Your task to perform on an android device: add a contact in the contacts app Image 0: 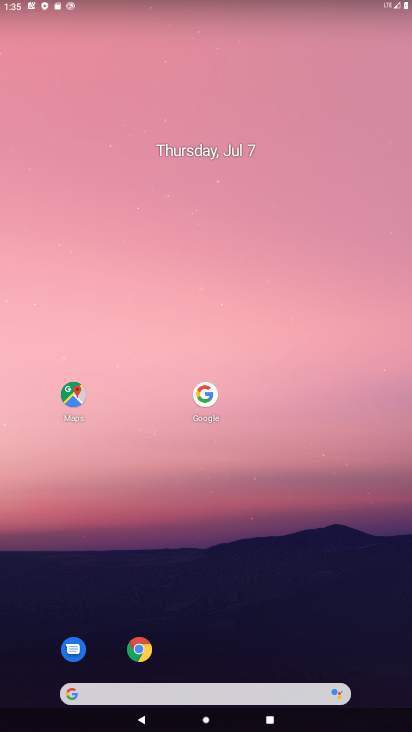
Step 0: press home button
Your task to perform on an android device: add a contact in the contacts app Image 1: 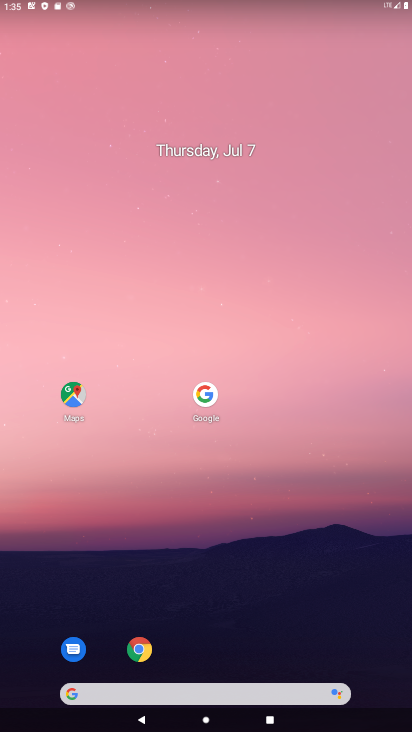
Step 1: press home button
Your task to perform on an android device: add a contact in the contacts app Image 2: 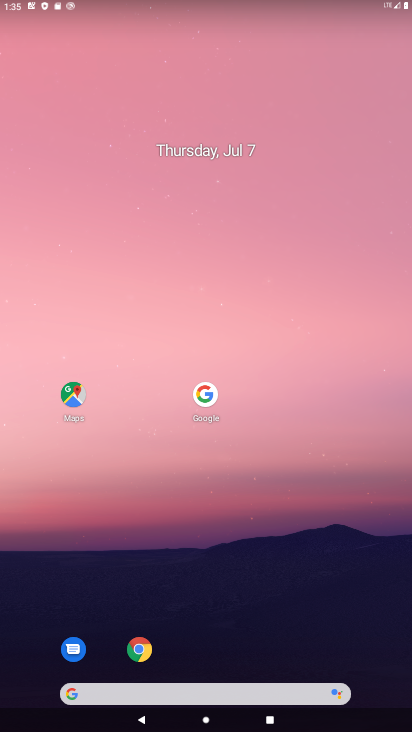
Step 2: drag from (281, 572) to (328, 138)
Your task to perform on an android device: add a contact in the contacts app Image 3: 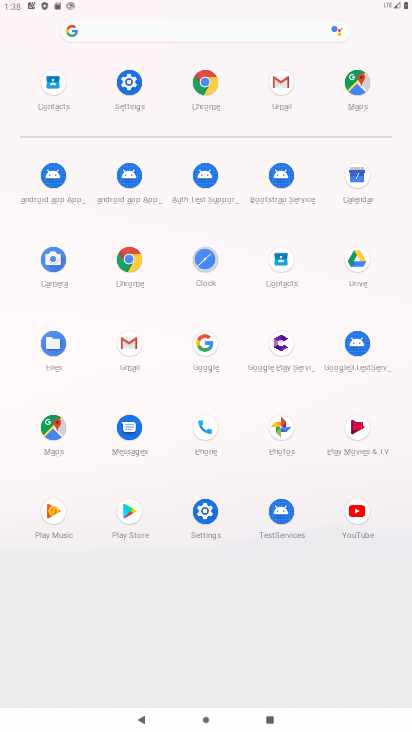
Step 3: click (283, 263)
Your task to perform on an android device: add a contact in the contacts app Image 4: 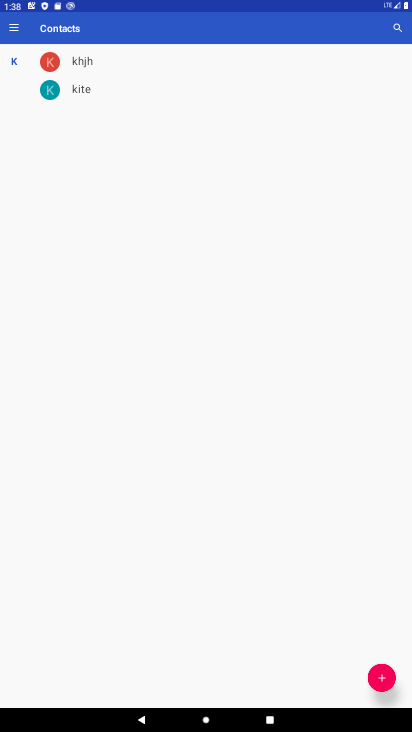
Step 4: click (387, 678)
Your task to perform on an android device: add a contact in the contacts app Image 5: 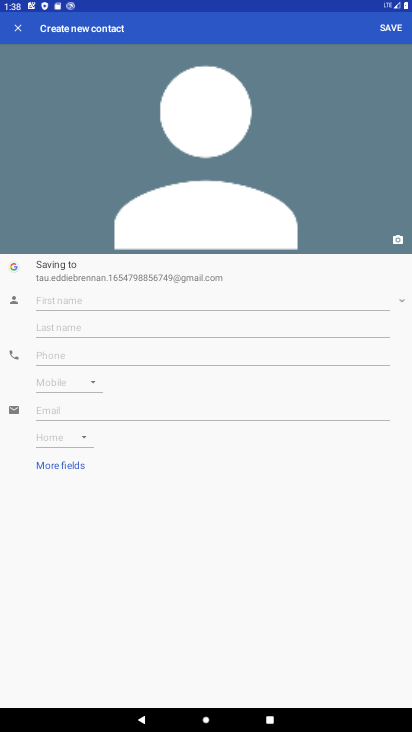
Step 5: click (107, 307)
Your task to perform on an android device: add a contact in the contacts app Image 6: 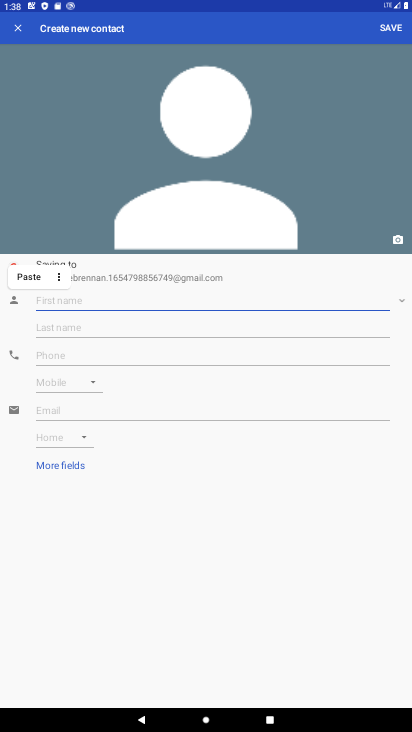
Step 6: type "hgggghhh"
Your task to perform on an android device: add a contact in the contacts app Image 7: 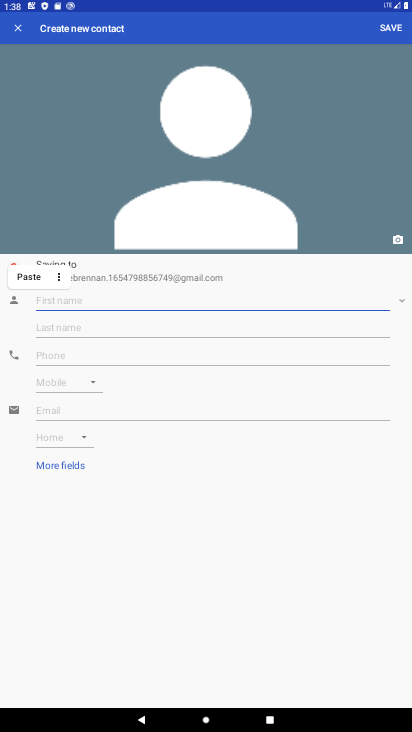
Step 7: click (87, 302)
Your task to perform on an android device: add a contact in the contacts app Image 8: 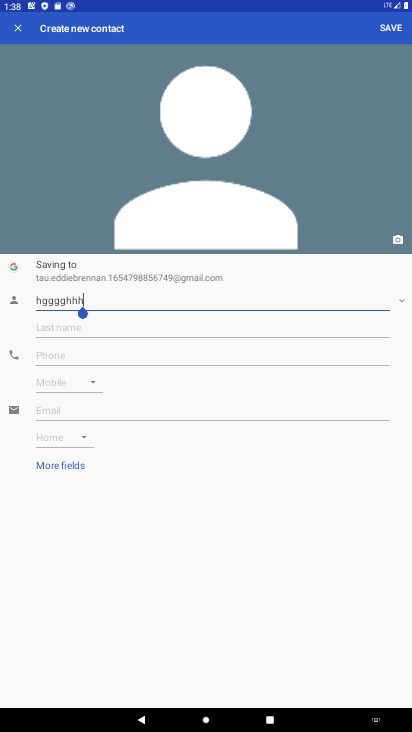
Step 8: click (92, 349)
Your task to perform on an android device: add a contact in the contacts app Image 9: 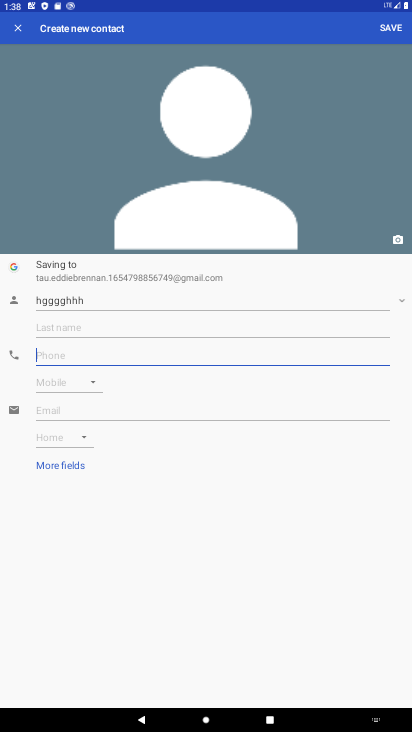
Step 9: click (69, 357)
Your task to perform on an android device: add a contact in the contacts app Image 10: 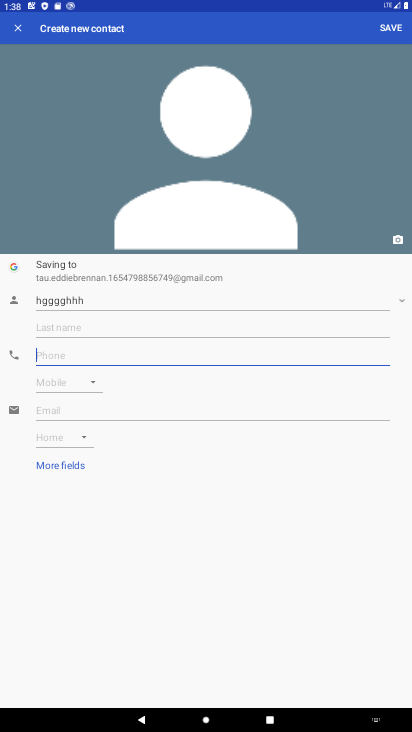
Step 10: type "654665353535536"
Your task to perform on an android device: add a contact in the contacts app Image 11: 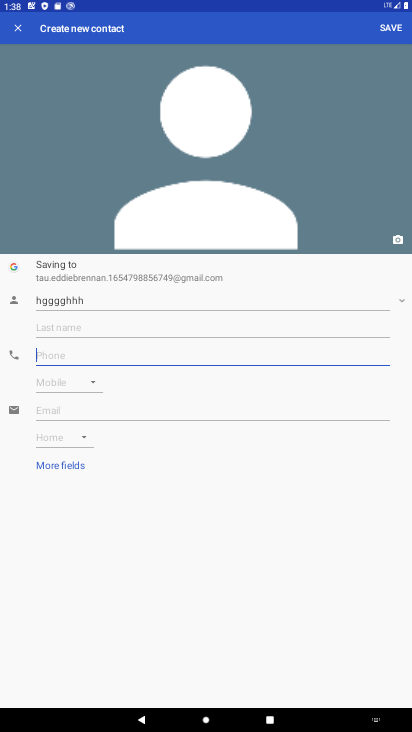
Step 11: click (69, 357)
Your task to perform on an android device: add a contact in the contacts app Image 12: 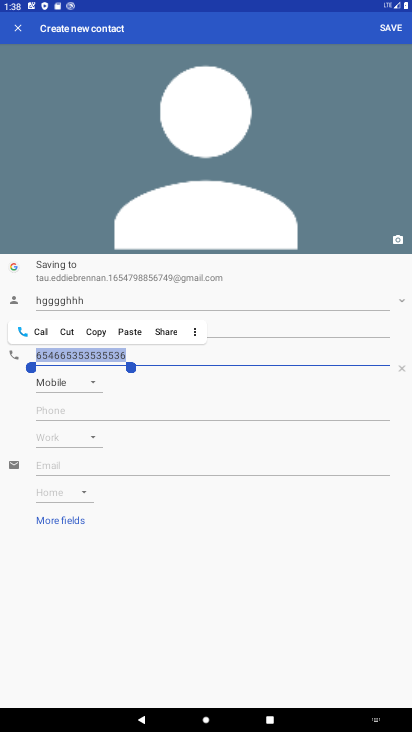
Step 12: type "46464"
Your task to perform on an android device: add a contact in the contacts app Image 13: 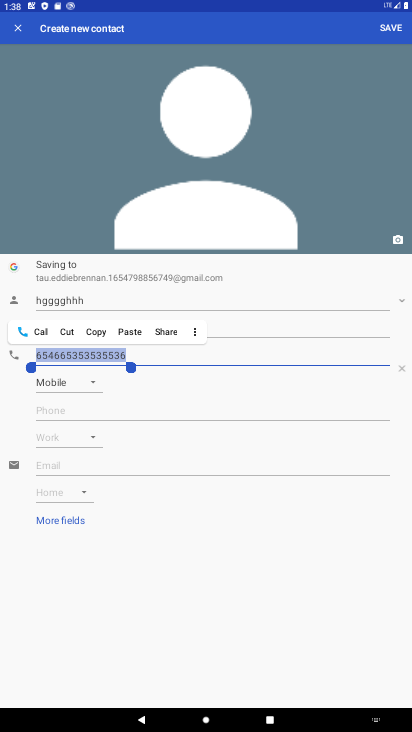
Step 13: drag from (180, 363) to (191, 529)
Your task to perform on an android device: add a contact in the contacts app Image 14: 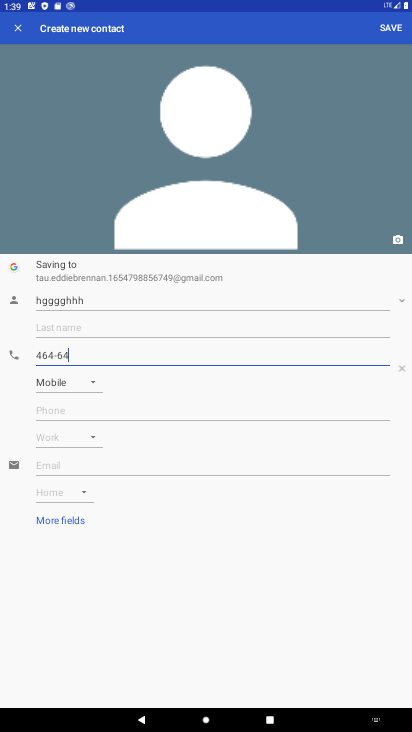
Step 14: click (382, 30)
Your task to perform on an android device: add a contact in the contacts app Image 15: 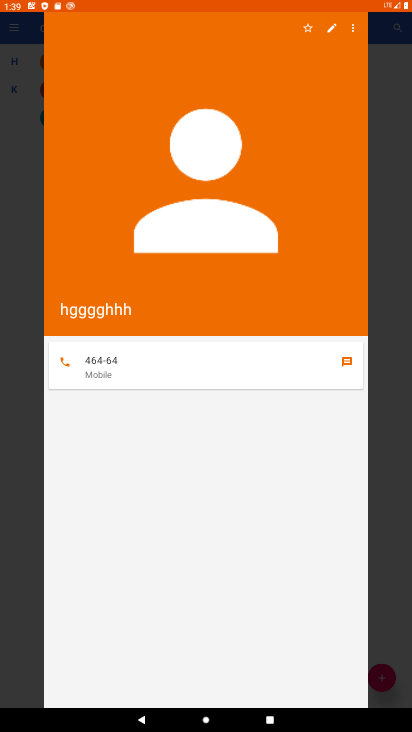
Step 15: press home button
Your task to perform on an android device: add a contact in the contacts app Image 16: 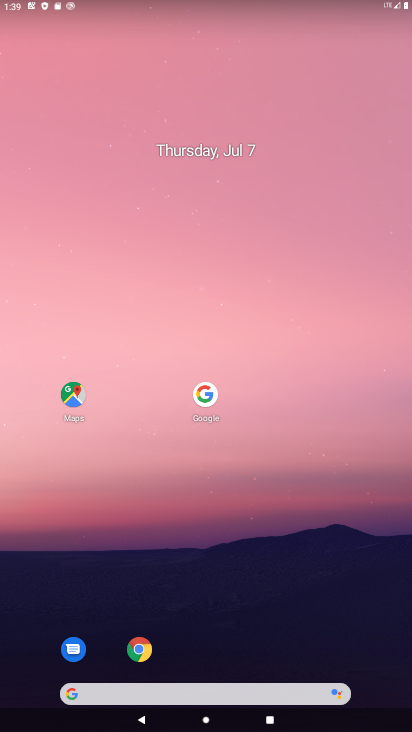
Step 16: drag from (343, 598) to (327, 159)
Your task to perform on an android device: add a contact in the contacts app Image 17: 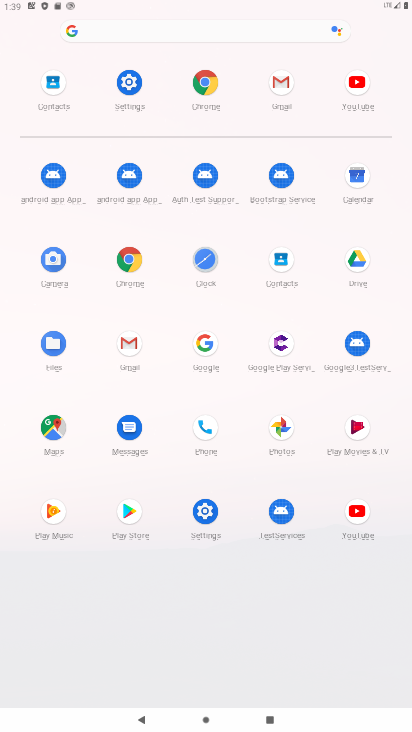
Step 17: press home button
Your task to perform on an android device: add a contact in the contacts app Image 18: 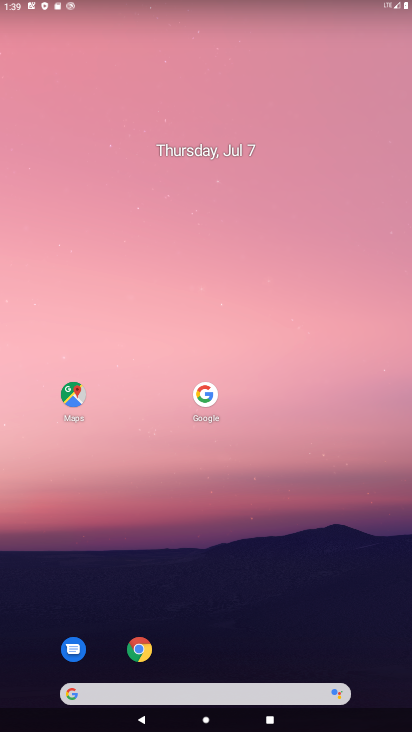
Step 18: press home button
Your task to perform on an android device: add a contact in the contacts app Image 19: 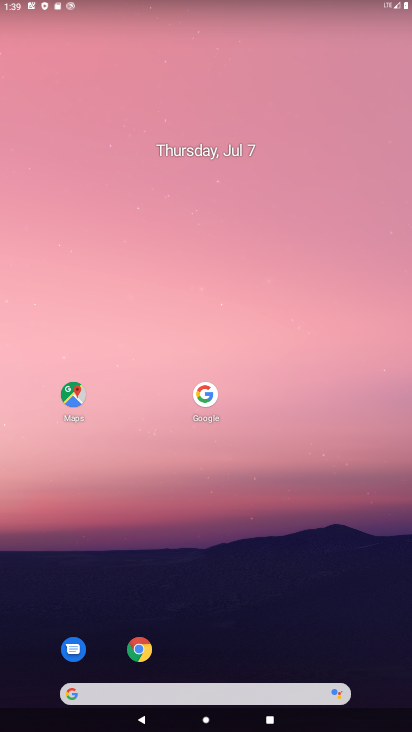
Step 19: drag from (320, 583) to (316, 1)
Your task to perform on an android device: add a contact in the contacts app Image 20: 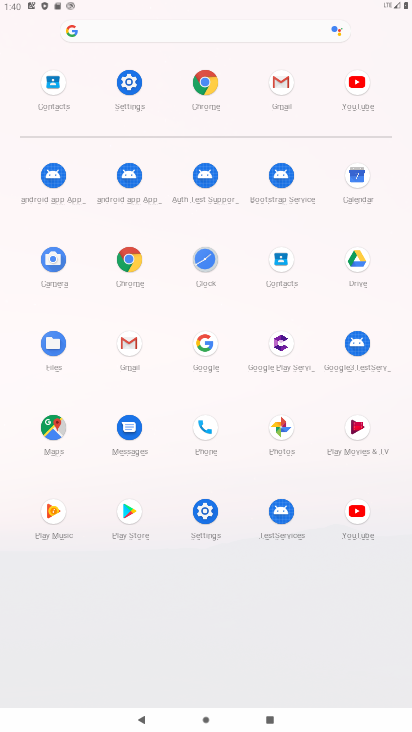
Step 20: click (278, 258)
Your task to perform on an android device: add a contact in the contacts app Image 21: 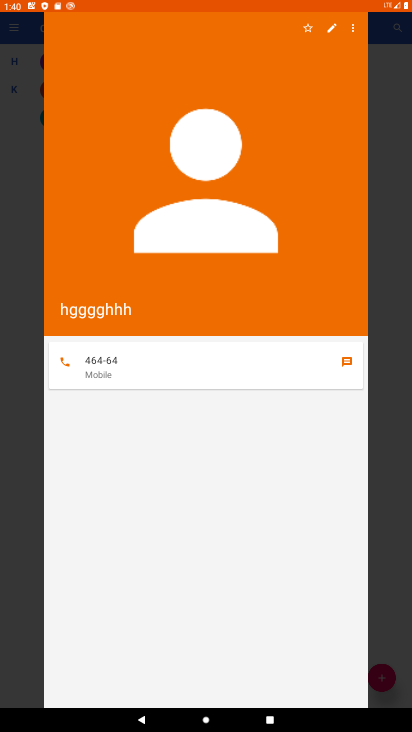
Step 21: press back button
Your task to perform on an android device: add a contact in the contacts app Image 22: 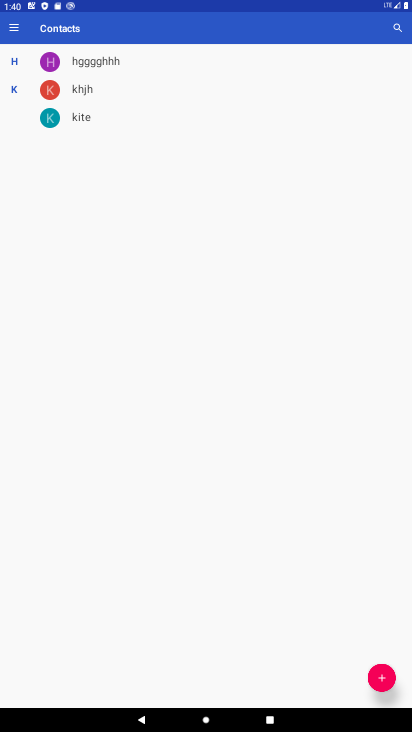
Step 22: press back button
Your task to perform on an android device: add a contact in the contacts app Image 23: 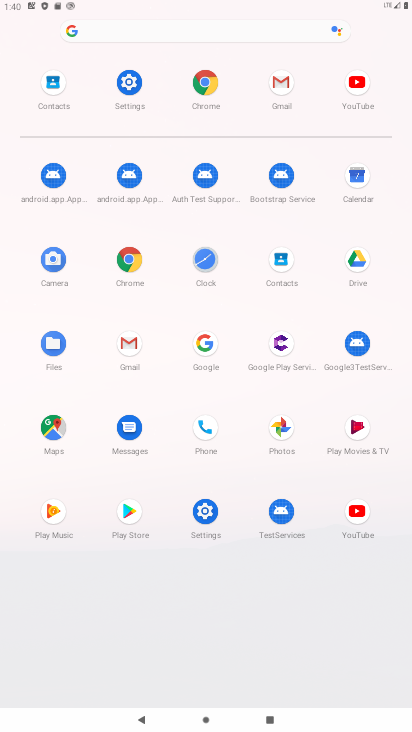
Step 23: click (282, 270)
Your task to perform on an android device: add a contact in the contacts app Image 24: 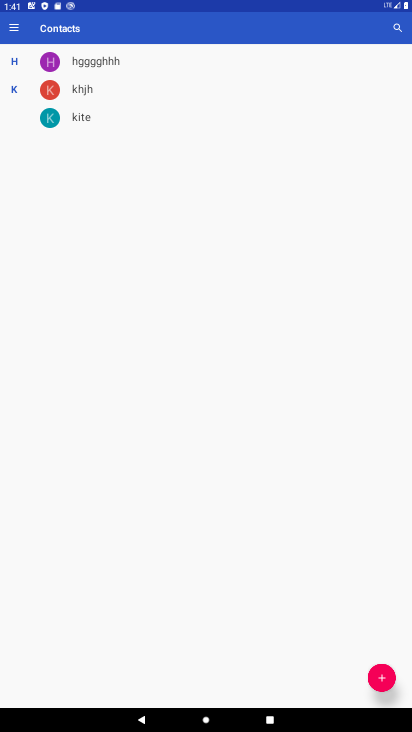
Step 24: click (378, 677)
Your task to perform on an android device: add a contact in the contacts app Image 25: 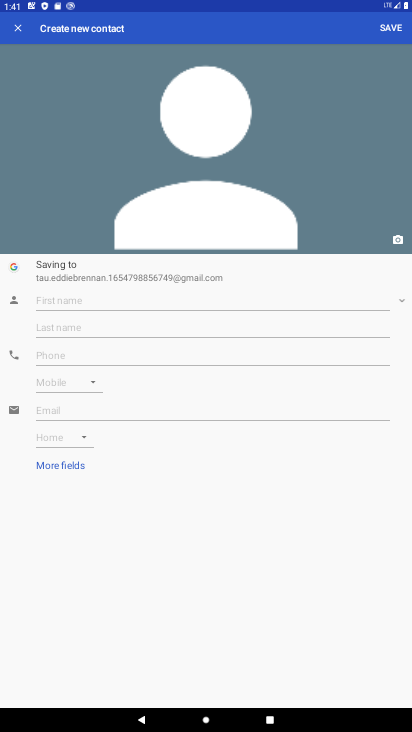
Step 25: click (81, 304)
Your task to perform on an android device: add a contact in the contacts app Image 26: 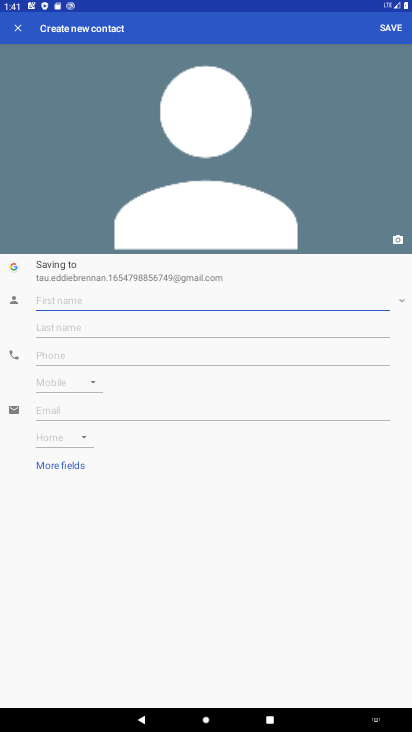
Step 26: type "ddddddddd"
Your task to perform on an android device: add a contact in the contacts app Image 27: 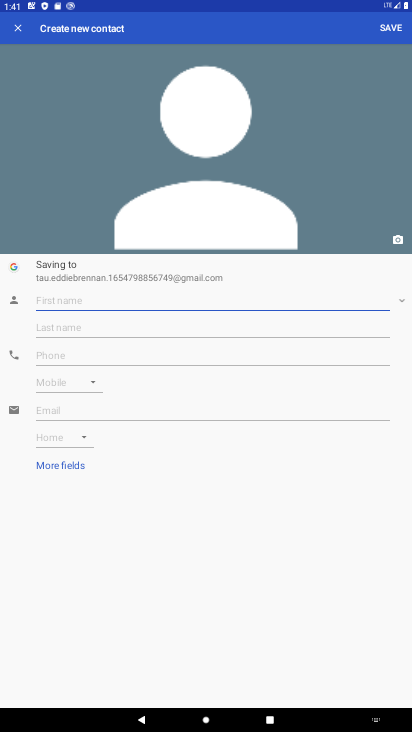
Step 27: click (126, 304)
Your task to perform on an android device: add a contact in the contacts app Image 28: 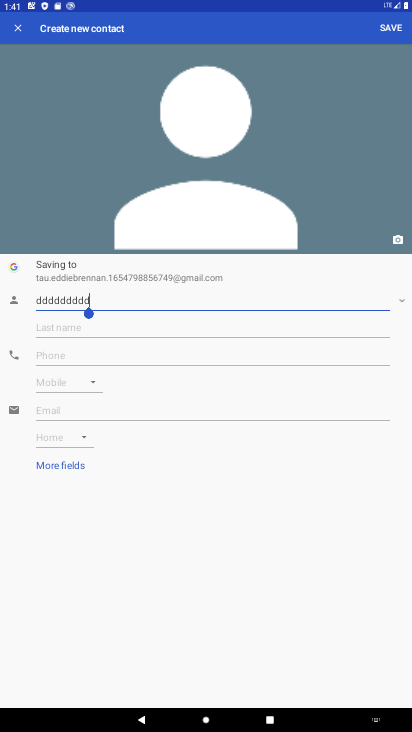
Step 28: click (97, 355)
Your task to perform on an android device: add a contact in the contacts app Image 29: 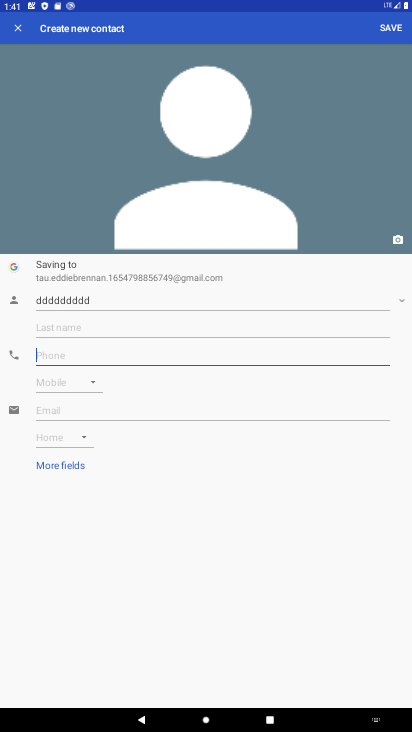
Step 29: type "444444444444"
Your task to perform on an android device: add a contact in the contacts app Image 30: 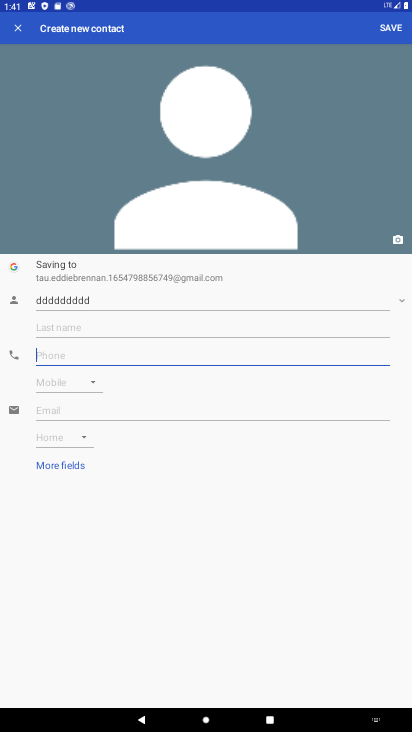
Step 30: click (83, 355)
Your task to perform on an android device: add a contact in the contacts app Image 31: 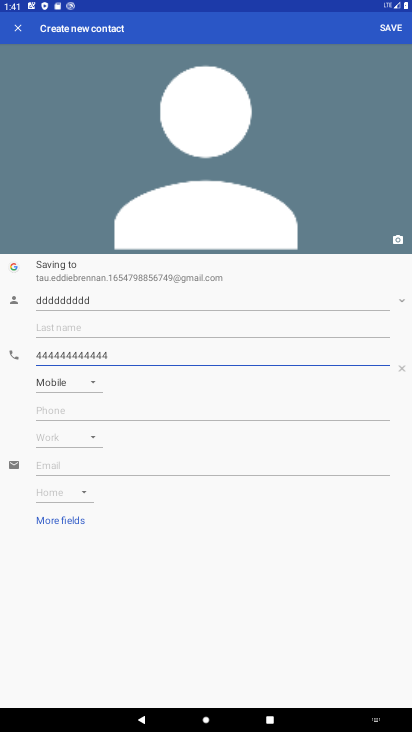
Step 31: click (399, 31)
Your task to perform on an android device: add a contact in the contacts app Image 32: 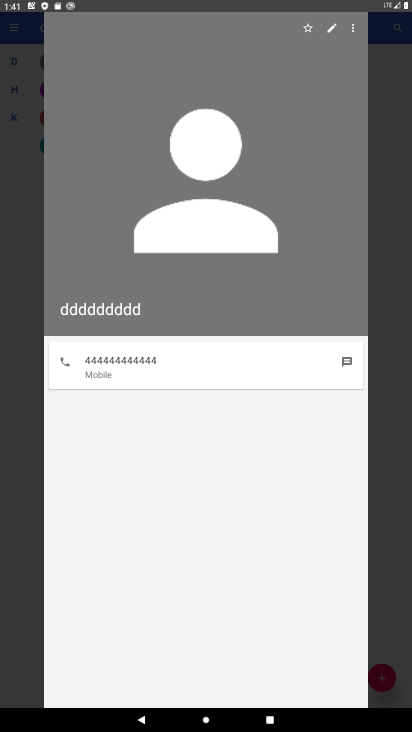
Step 32: task complete